Your task to perform on an android device: Open Google Chrome and open the bookmarks view Image 0: 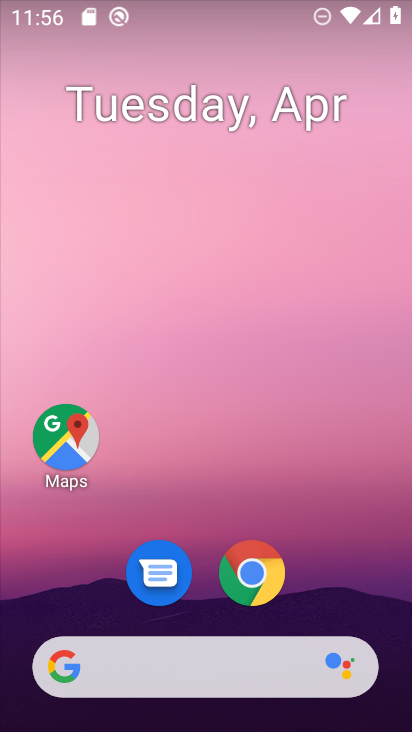
Step 0: drag from (330, 500) to (199, 0)
Your task to perform on an android device: Open Google Chrome and open the bookmarks view Image 1: 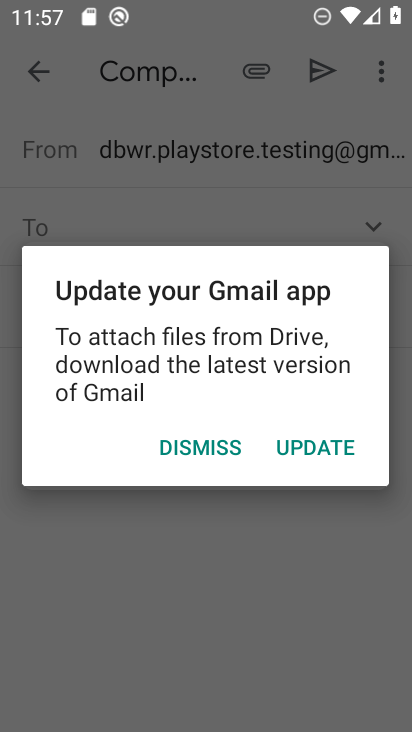
Step 1: press home button
Your task to perform on an android device: Open Google Chrome and open the bookmarks view Image 2: 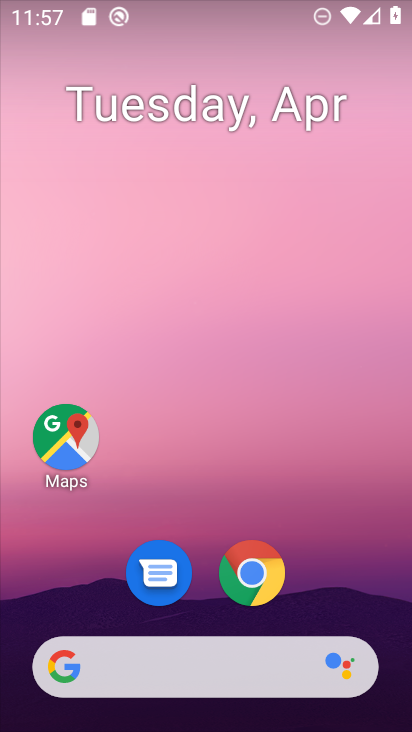
Step 2: click (261, 580)
Your task to perform on an android device: Open Google Chrome and open the bookmarks view Image 3: 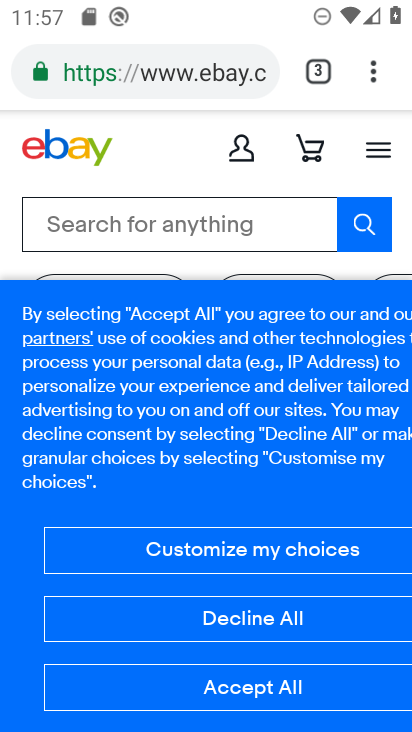
Step 3: task complete